Your task to perform on an android device: turn off notifications settings in the gmail app Image 0: 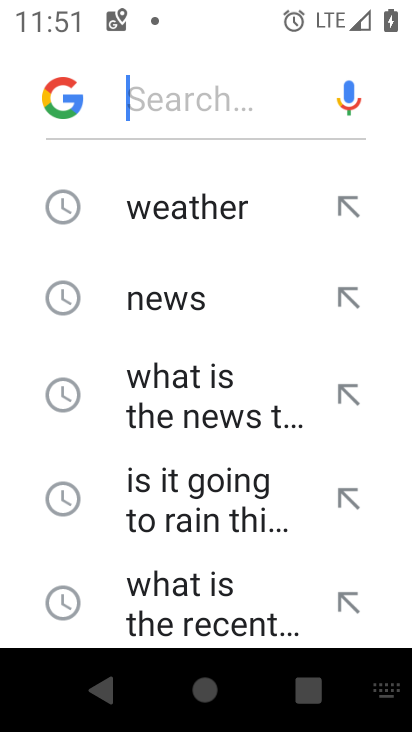
Step 0: press home button
Your task to perform on an android device: turn off notifications settings in the gmail app Image 1: 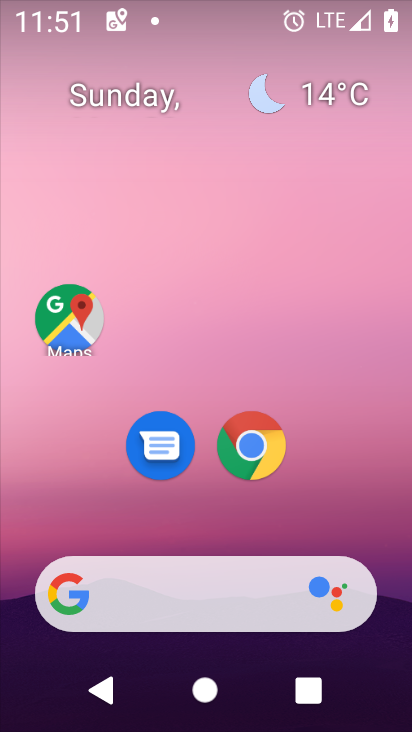
Step 1: drag from (194, 536) to (234, 91)
Your task to perform on an android device: turn off notifications settings in the gmail app Image 2: 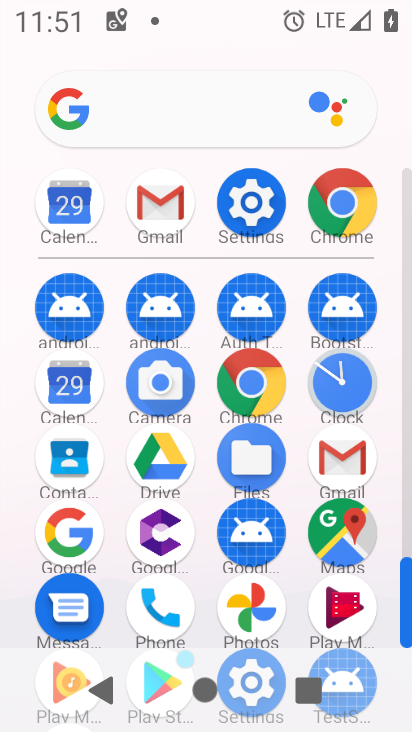
Step 2: click (322, 454)
Your task to perform on an android device: turn off notifications settings in the gmail app Image 3: 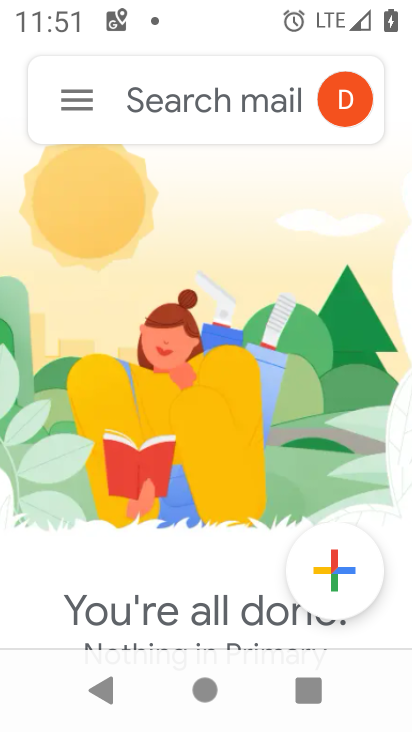
Step 3: drag from (171, 590) to (236, 275)
Your task to perform on an android device: turn off notifications settings in the gmail app Image 4: 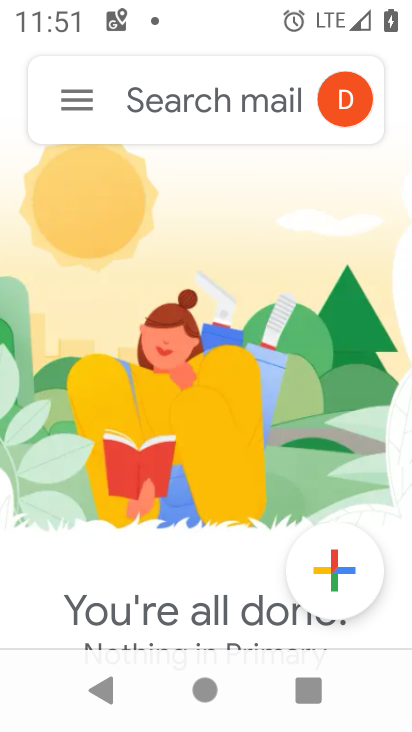
Step 4: click (71, 108)
Your task to perform on an android device: turn off notifications settings in the gmail app Image 5: 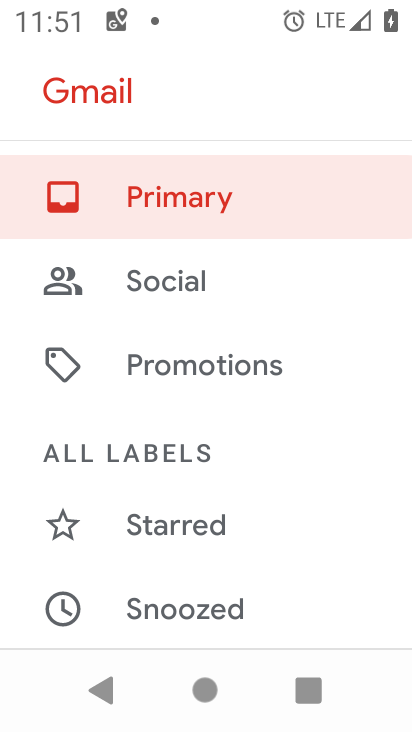
Step 5: drag from (202, 284) to (272, 14)
Your task to perform on an android device: turn off notifications settings in the gmail app Image 6: 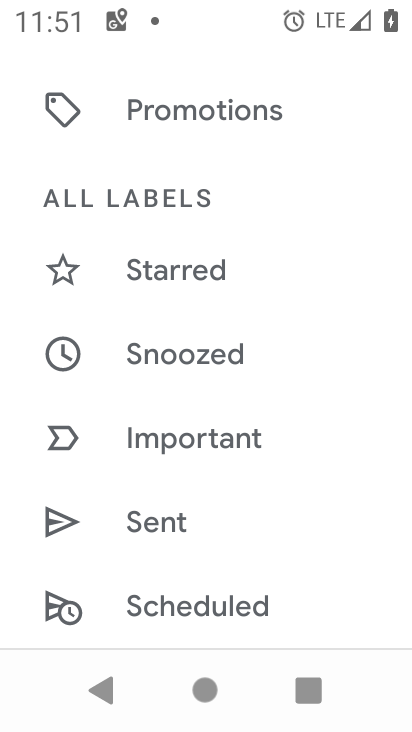
Step 6: drag from (165, 488) to (287, 14)
Your task to perform on an android device: turn off notifications settings in the gmail app Image 7: 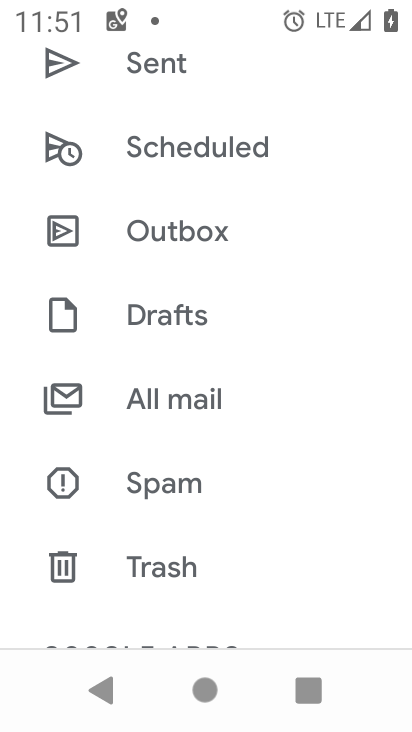
Step 7: drag from (169, 551) to (284, 3)
Your task to perform on an android device: turn off notifications settings in the gmail app Image 8: 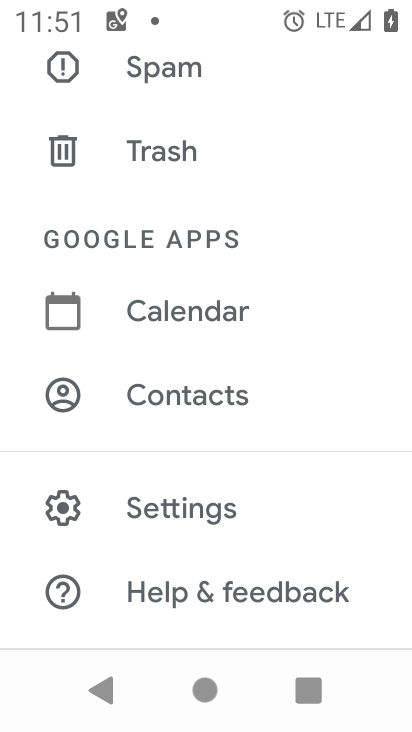
Step 8: click (166, 517)
Your task to perform on an android device: turn off notifications settings in the gmail app Image 9: 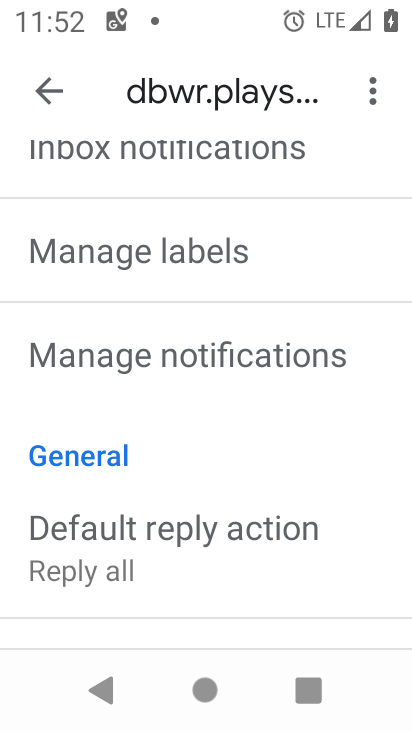
Step 9: click (212, 348)
Your task to perform on an android device: turn off notifications settings in the gmail app Image 10: 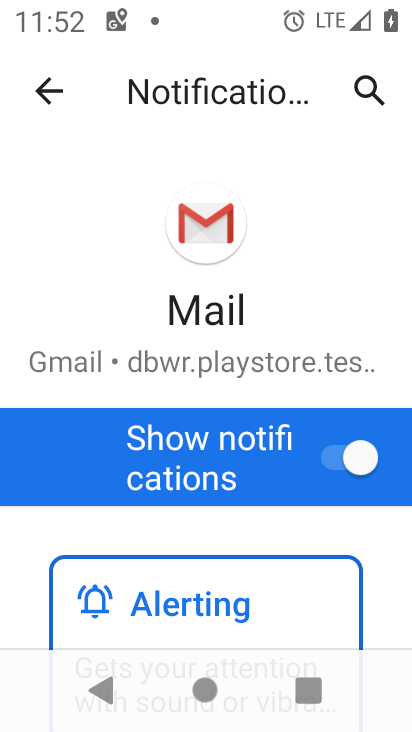
Step 10: click (345, 453)
Your task to perform on an android device: turn off notifications settings in the gmail app Image 11: 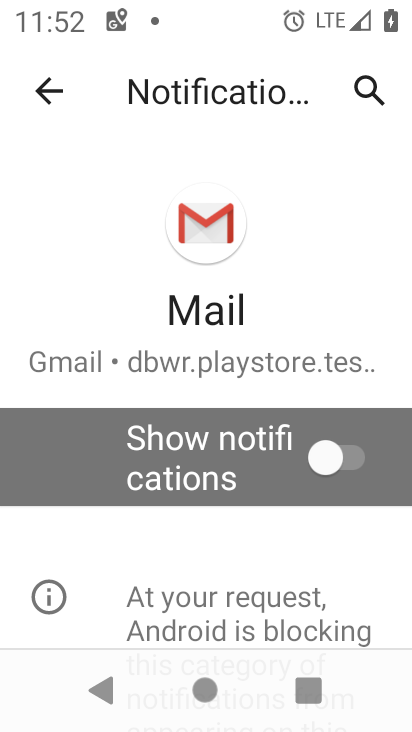
Step 11: task complete